Your task to perform on an android device: Go to ESPN.com Image 0: 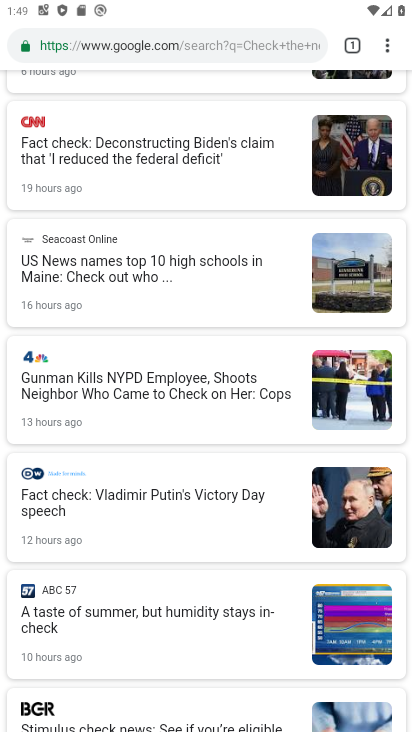
Step 0: click (168, 47)
Your task to perform on an android device: Go to ESPN.com Image 1: 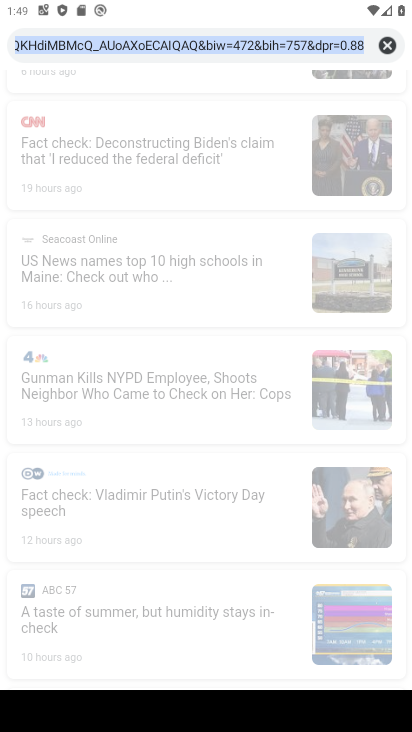
Step 1: click (388, 41)
Your task to perform on an android device: Go to ESPN.com Image 2: 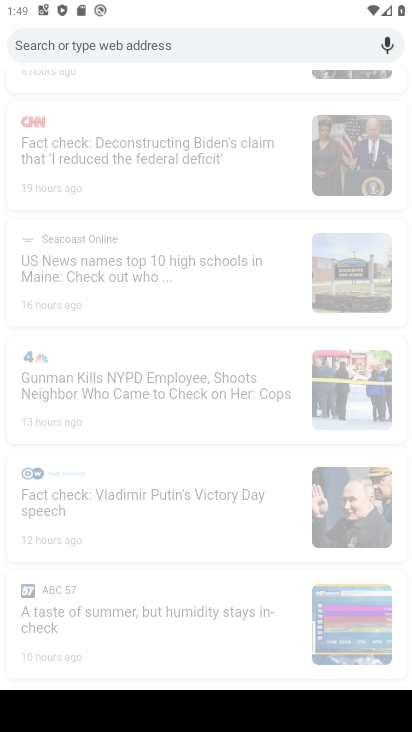
Step 2: type "ESPN.com"
Your task to perform on an android device: Go to ESPN.com Image 3: 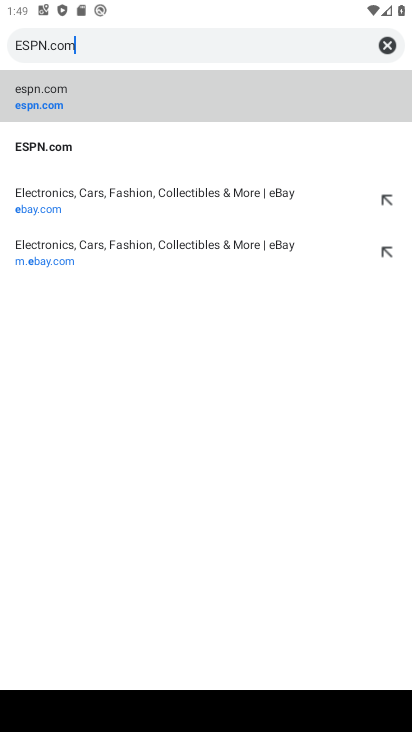
Step 3: type ""
Your task to perform on an android device: Go to ESPN.com Image 4: 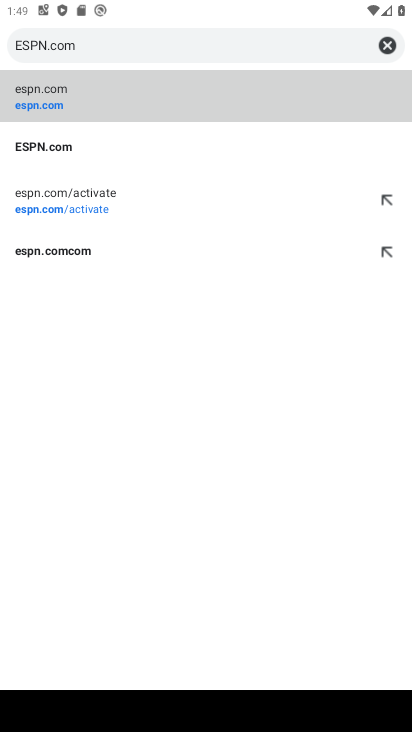
Step 4: click (108, 89)
Your task to perform on an android device: Go to ESPN.com Image 5: 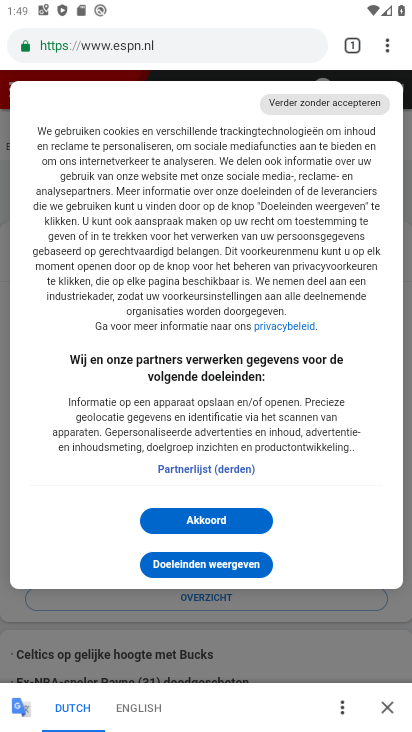
Step 5: click (217, 525)
Your task to perform on an android device: Go to ESPN.com Image 6: 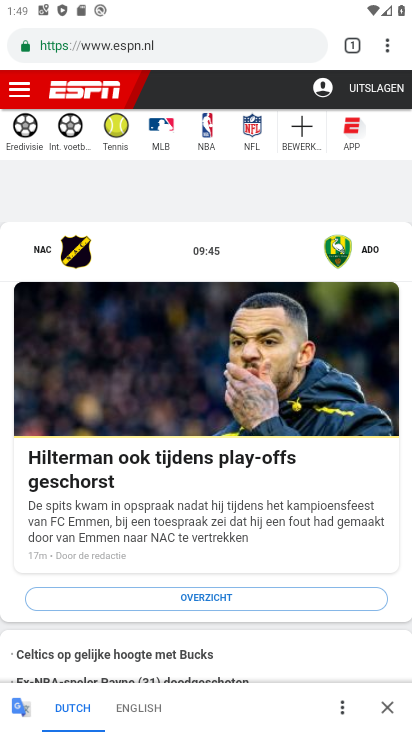
Step 6: task complete